Your task to perform on an android device: check android version Image 0: 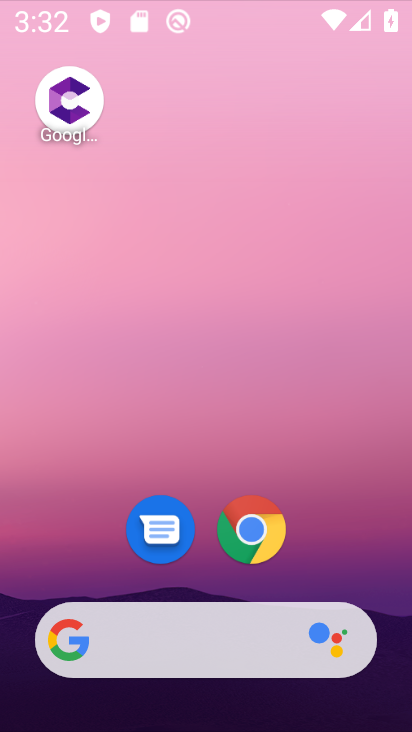
Step 0: click (257, 527)
Your task to perform on an android device: check android version Image 1: 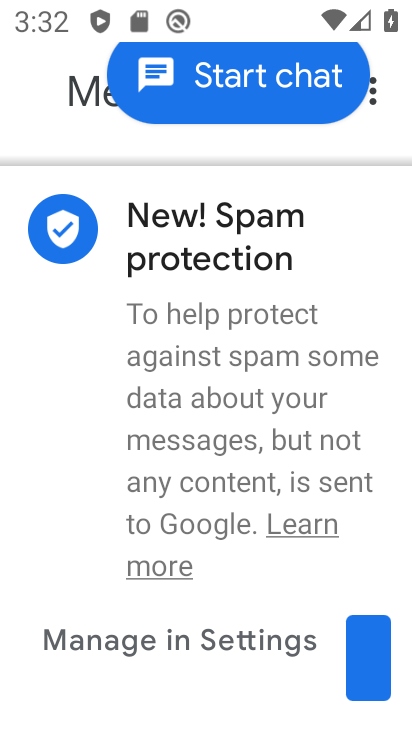
Step 1: press home button
Your task to perform on an android device: check android version Image 2: 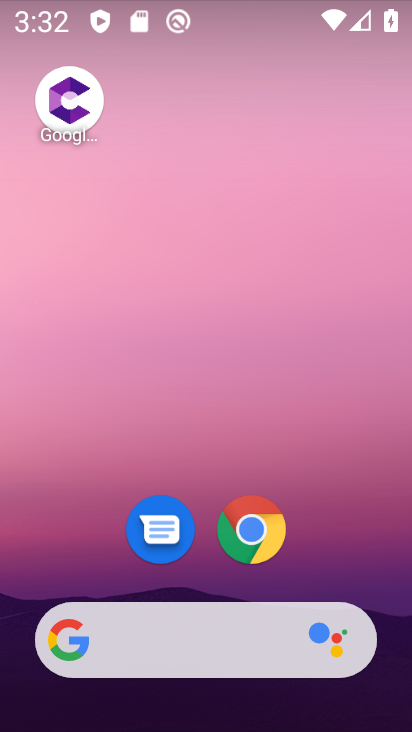
Step 2: drag from (94, 599) to (188, 161)
Your task to perform on an android device: check android version Image 3: 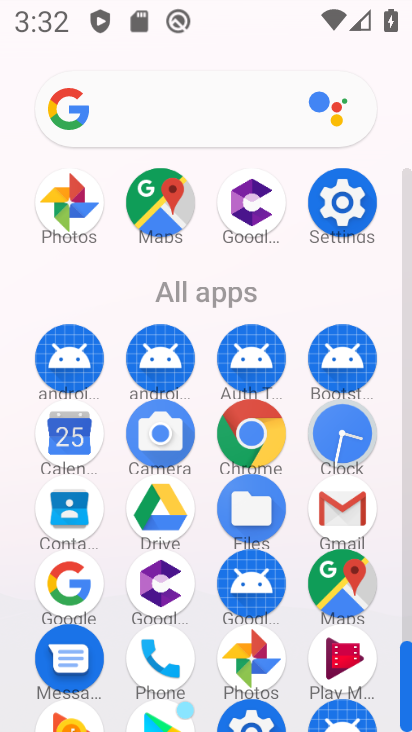
Step 3: drag from (181, 586) to (253, 347)
Your task to perform on an android device: check android version Image 4: 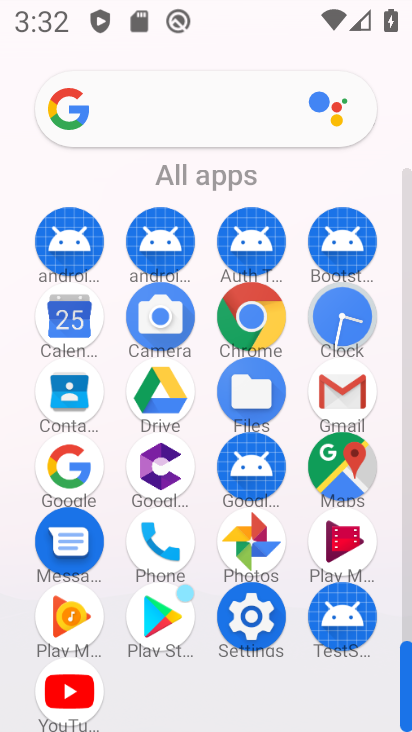
Step 4: click (246, 622)
Your task to perform on an android device: check android version Image 5: 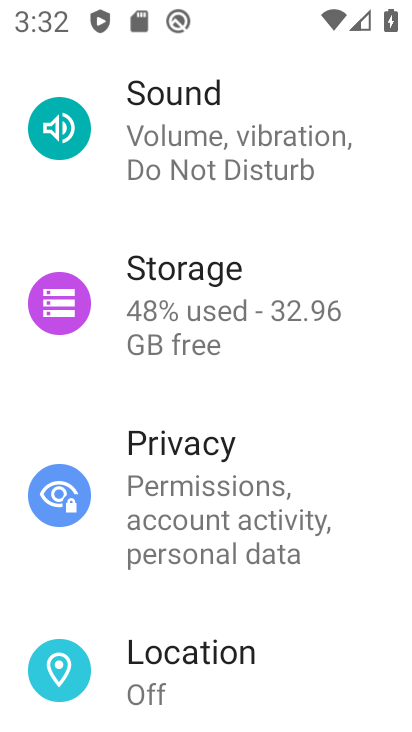
Step 5: drag from (191, 657) to (348, 116)
Your task to perform on an android device: check android version Image 6: 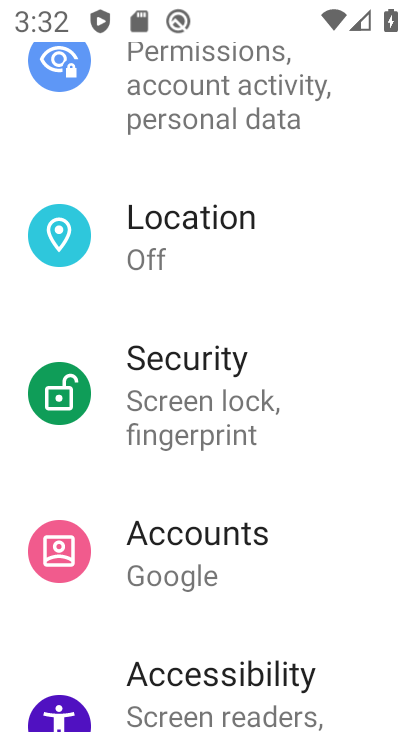
Step 6: drag from (117, 613) to (237, 69)
Your task to perform on an android device: check android version Image 7: 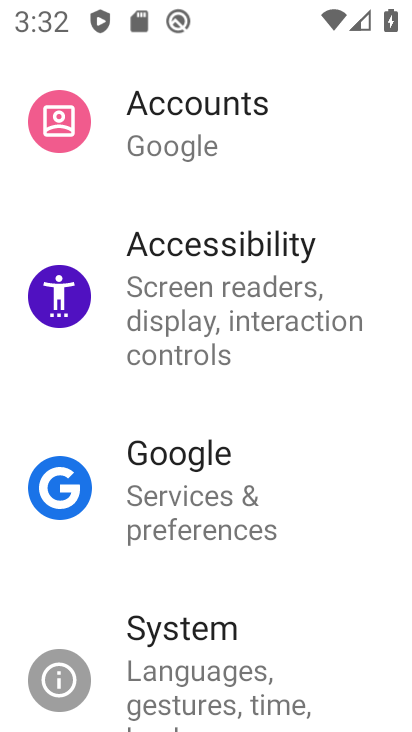
Step 7: drag from (166, 633) to (281, 108)
Your task to perform on an android device: check android version Image 8: 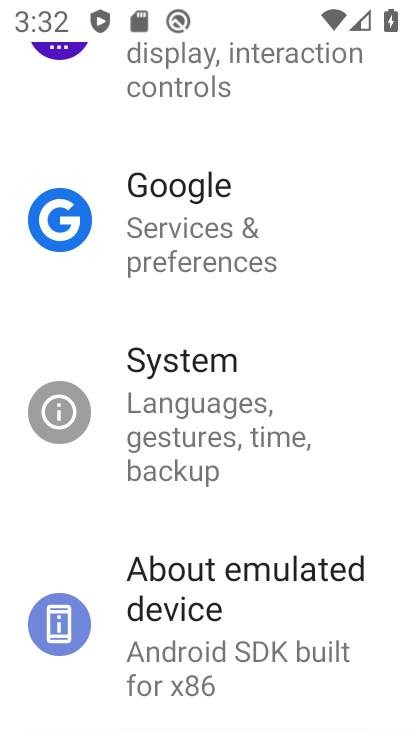
Step 8: drag from (185, 638) to (299, 99)
Your task to perform on an android device: check android version Image 9: 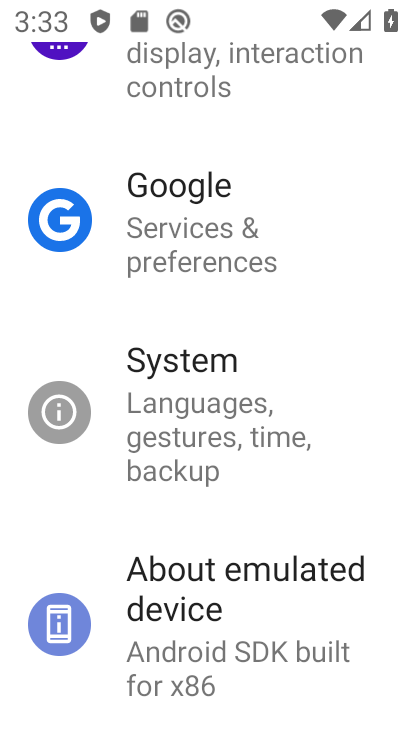
Step 9: click (239, 618)
Your task to perform on an android device: check android version Image 10: 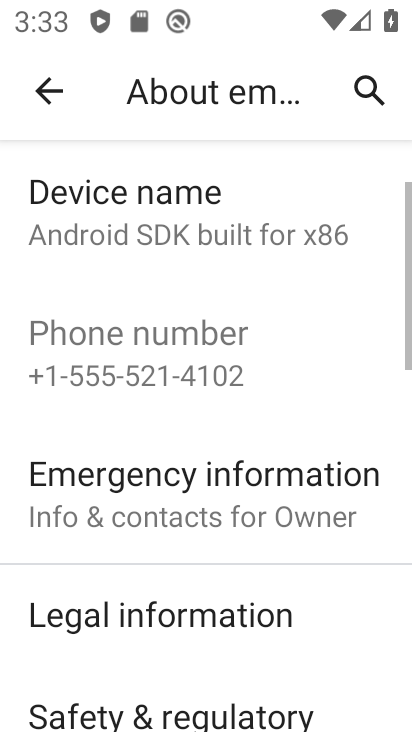
Step 10: drag from (42, 658) to (170, 236)
Your task to perform on an android device: check android version Image 11: 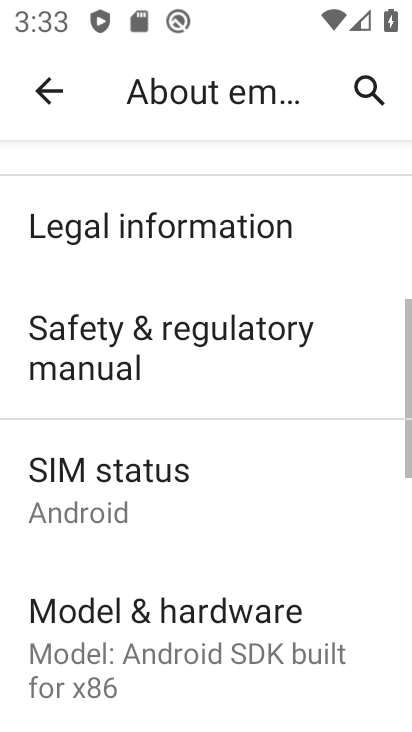
Step 11: drag from (112, 670) to (236, 289)
Your task to perform on an android device: check android version Image 12: 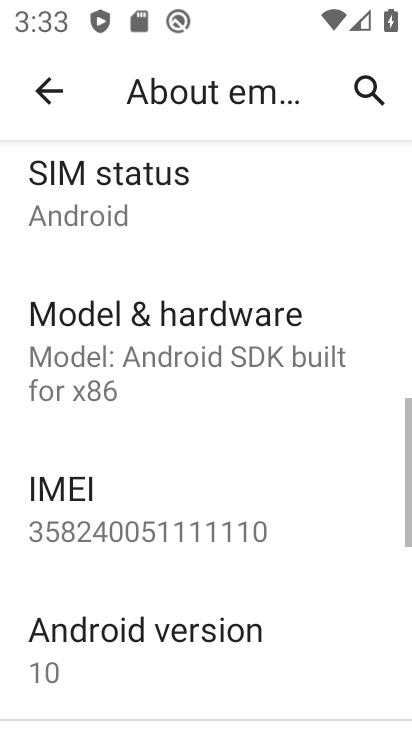
Step 12: click (209, 634)
Your task to perform on an android device: check android version Image 13: 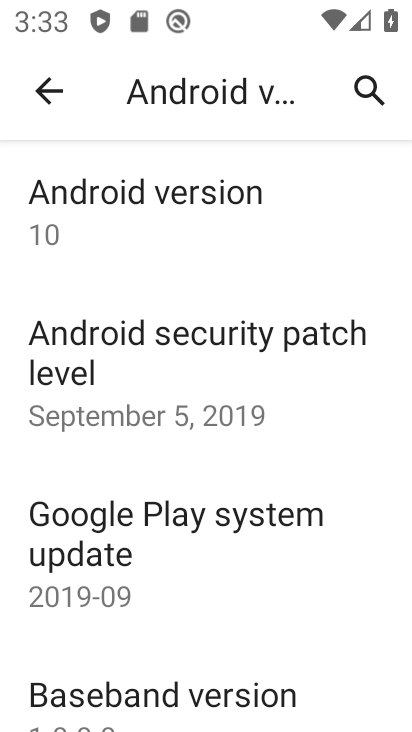
Step 13: click (268, 203)
Your task to perform on an android device: check android version Image 14: 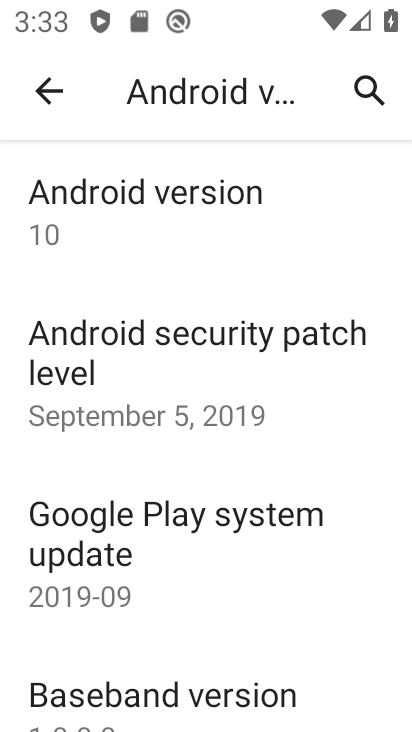
Step 14: task complete